Your task to perform on an android device: see sites visited before in the chrome app Image 0: 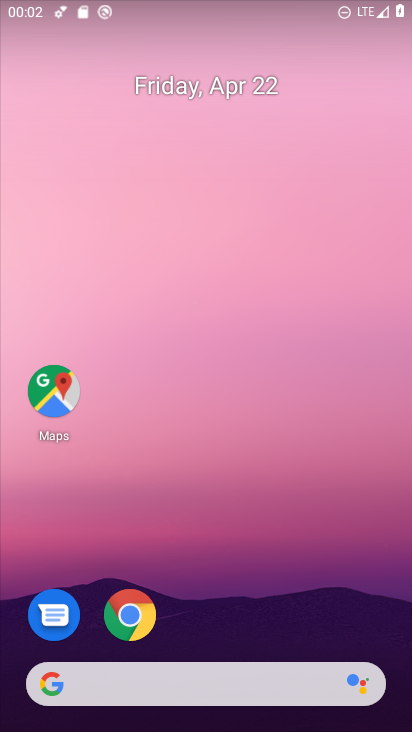
Step 0: press home button
Your task to perform on an android device: see sites visited before in the chrome app Image 1: 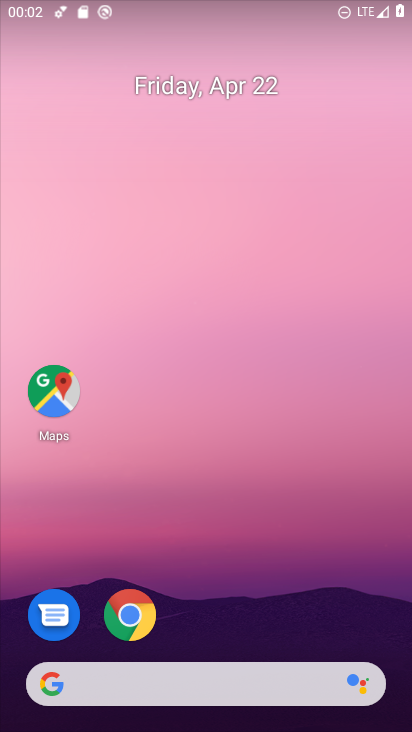
Step 1: drag from (219, 635) to (253, 105)
Your task to perform on an android device: see sites visited before in the chrome app Image 2: 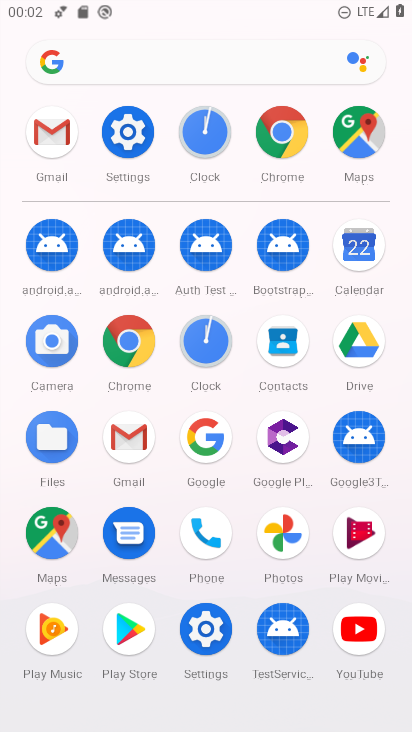
Step 2: click (126, 337)
Your task to perform on an android device: see sites visited before in the chrome app Image 3: 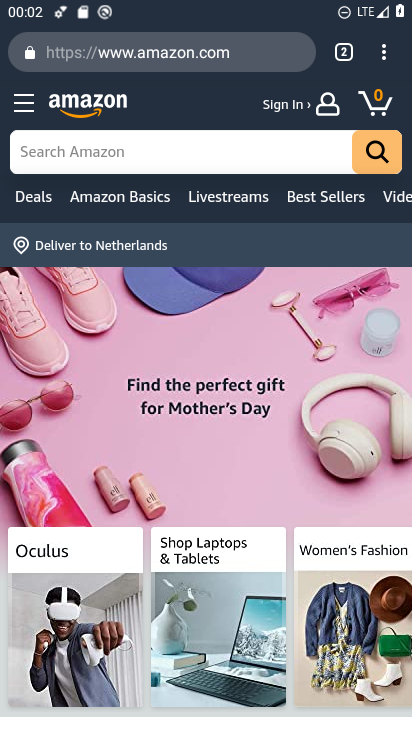
Step 3: click (378, 53)
Your task to perform on an android device: see sites visited before in the chrome app Image 4: 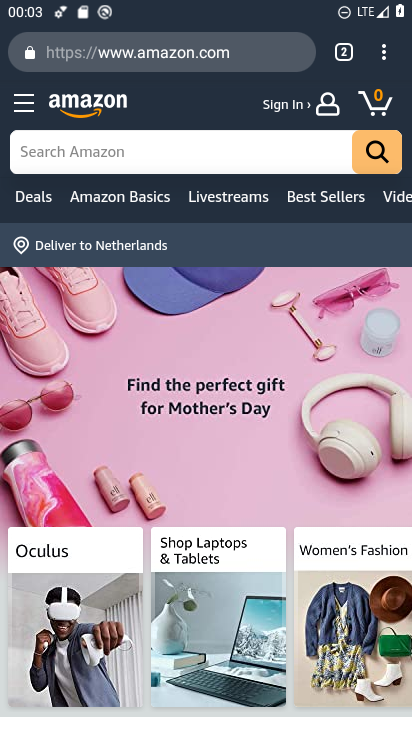
Step 4: click (390, 49)
Your task to perform on an android device: see sites visited before in the chrome app Image 5: 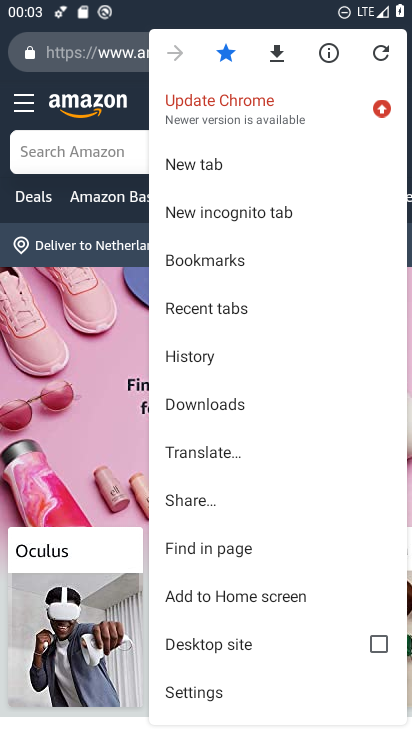
Step 5: click (229, 359)
Your task to perform on an android device: see sites visited before in the chrome app Image 6: 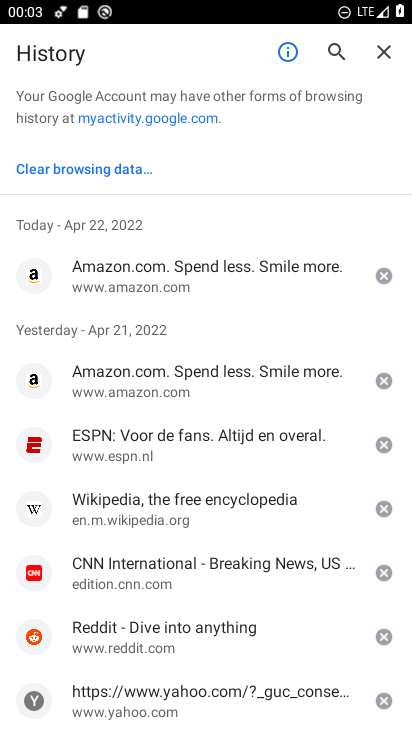
Step 6: task complete